Your task to perform on an android device: Go to Wikipedia Image 0: 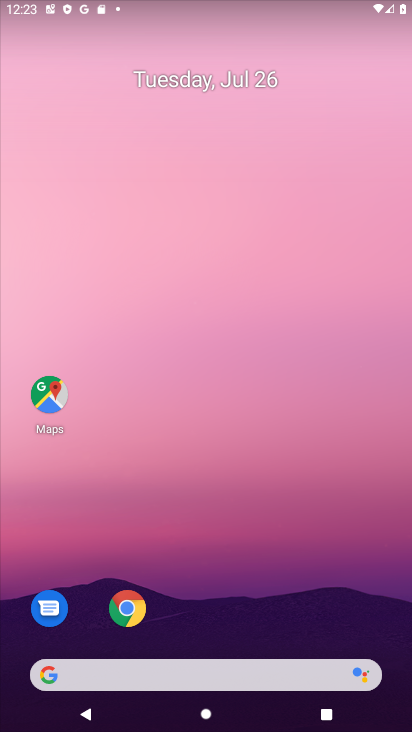
Step 0: click (130, 621)
Your task to perform on an android device: Go to Wikipedia Image 1: 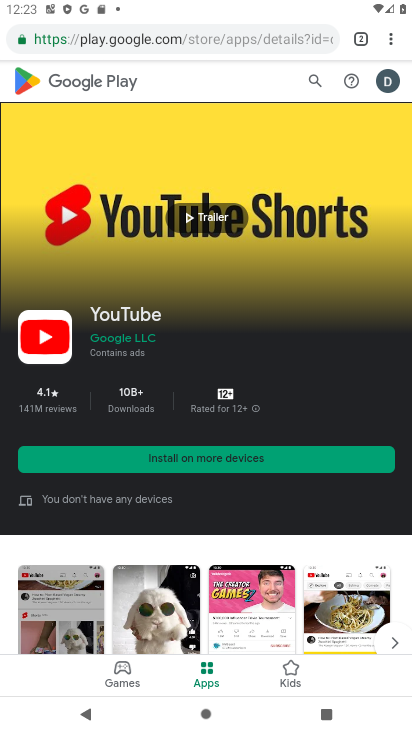
Step 1: click (363, 41)
Your task to perform on an android device: Go to Wikipedia Image 2: 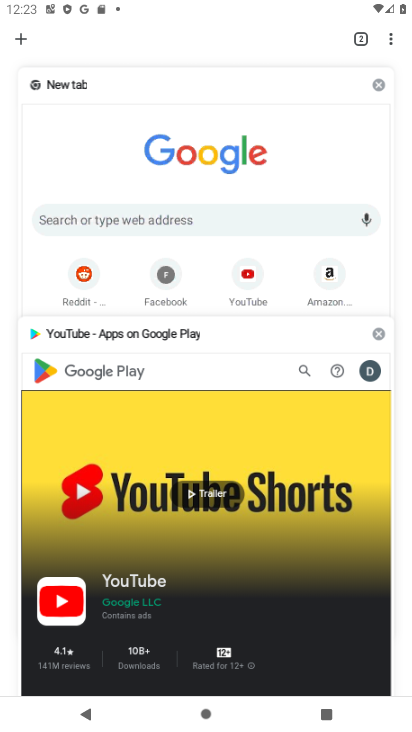
Step 2: click (131, 129)
Your task to perform on an android device: Go to Wikipedia Image 3: 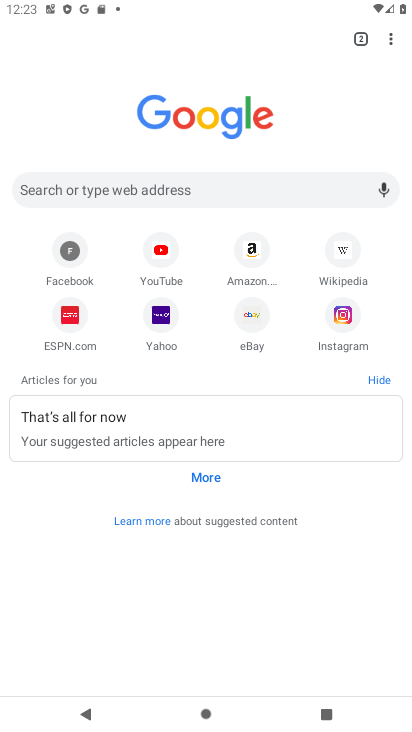
Step 3: click (345, 250)
Your task to perform on an android device: Go to Wikipedia Image 4: 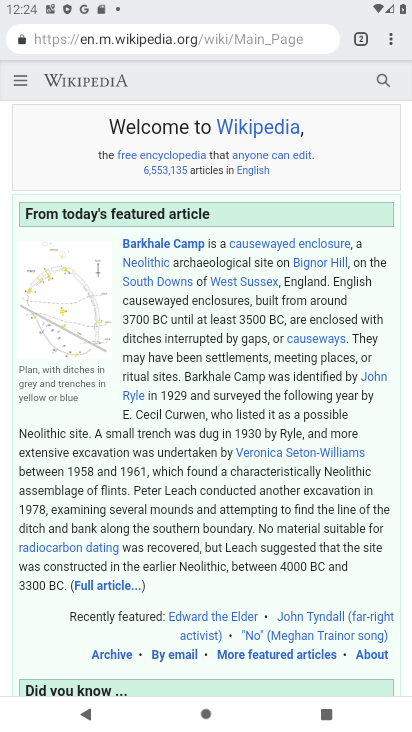
Step 4: task complete